Your task to perform on an android device: search for starred emails in the gmail app Image 0: 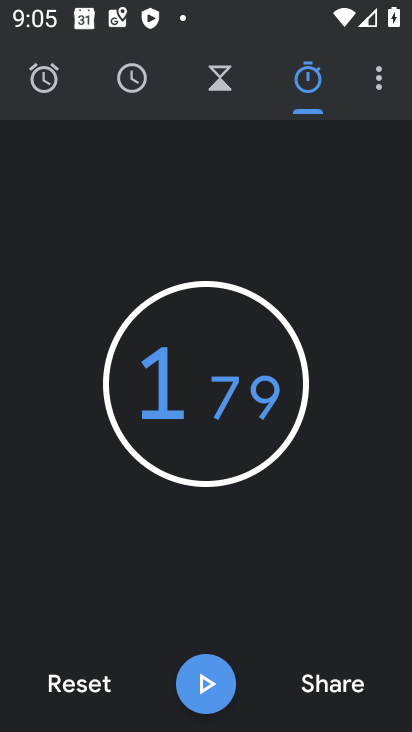
Step 0: press back button
Your task to perform on an android device: search for starred emails in the gmail app Image 1: 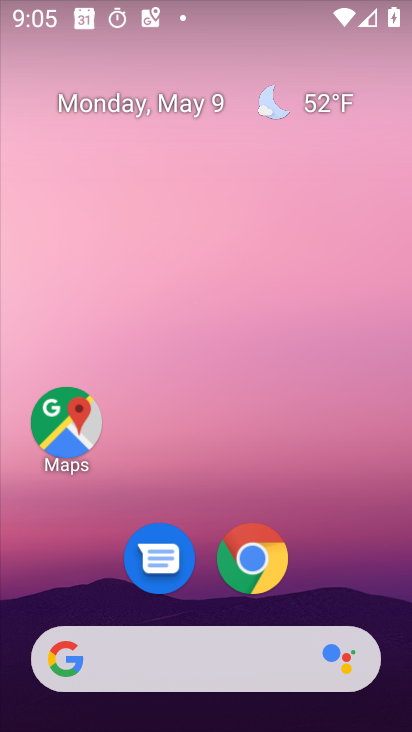
Step 1: drag from (198, 565) to (320, 83)
Your task to perform on an android device: search for starred emails in the gmail app Image 2: 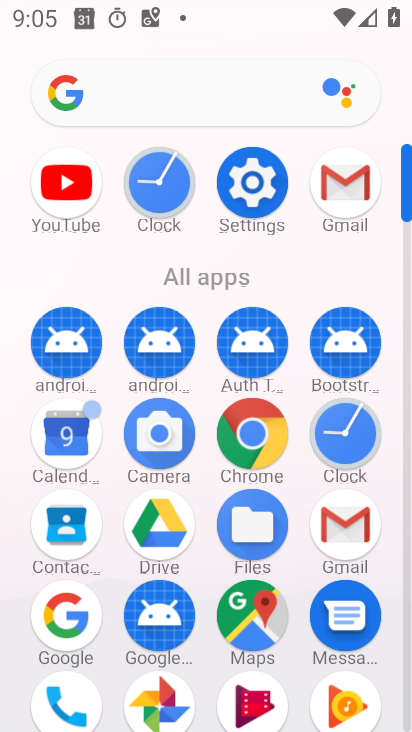
Step 2: click (335, 163)
Your task to perform on an android device: search for starred emails in the gmail app Image 3: 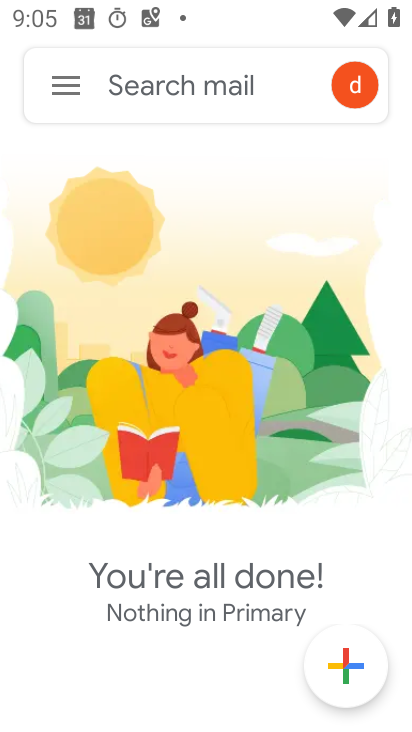
Step 3: click (63, 82)
Your task to perform on an android device: search for starred emails in the gmail app Image 4: 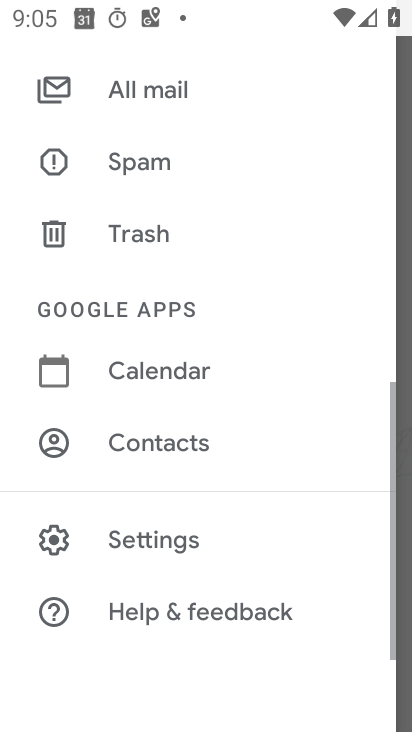
Step 4: drag from (200, 185) to (112, 686)
Your task to perform on an android device: search for starred emails in the gmail app Image 5: 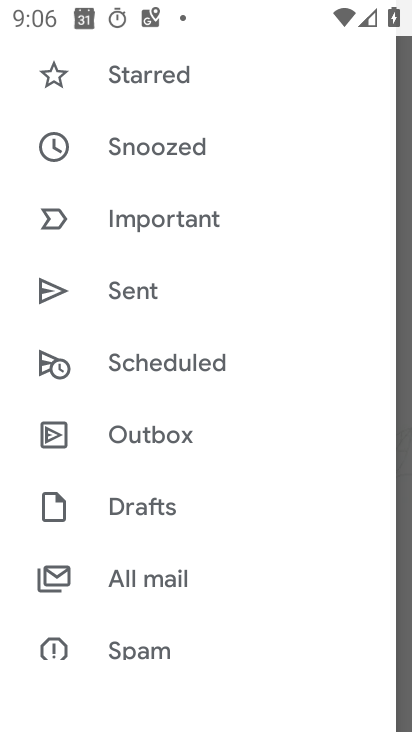
Step 5: click (147, 68)
Your task to perform on an android device: search for starred emails in the gmail app Image 6: 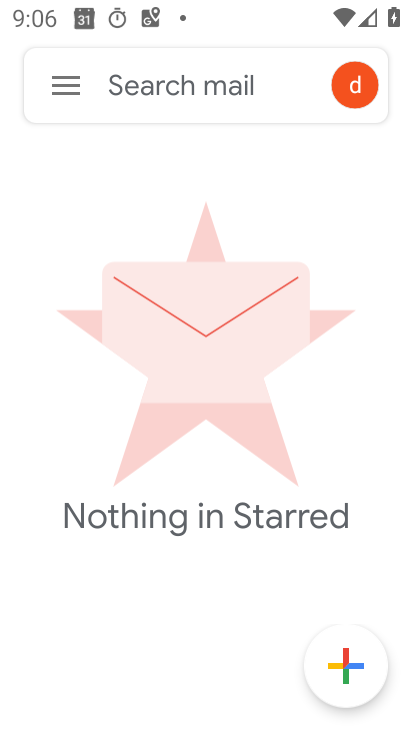
Step 6: task complete